Your task to perform on an android device: remove spam from my inbox in the gmail app Image 0: 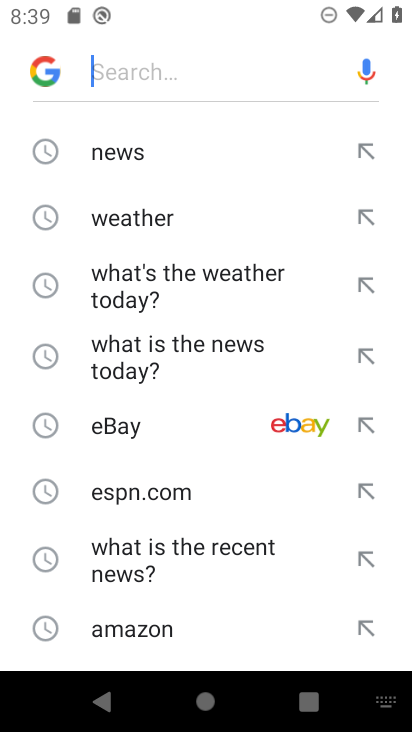
Step 0: press home button
Your task to perform on an android device: remove spam from my inbox in the gmail app Image 1: 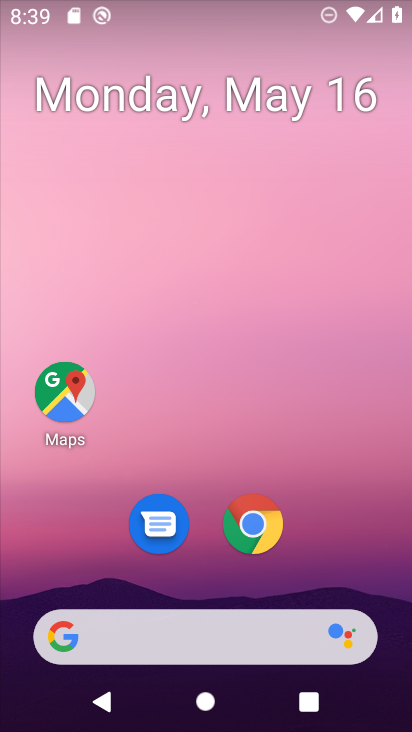
Step 1: drag from (348, 553) to (321, 14)
Your task to perform on an android device: remove spam from my inbox in the gmail app Image 2: 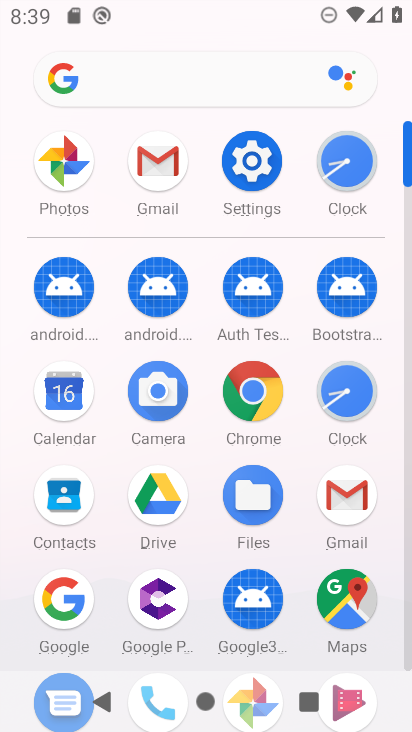
Step 2: click (157, 165)
Your task to perform on an android device: remove spam from my inbox in the gmail app Image 3: 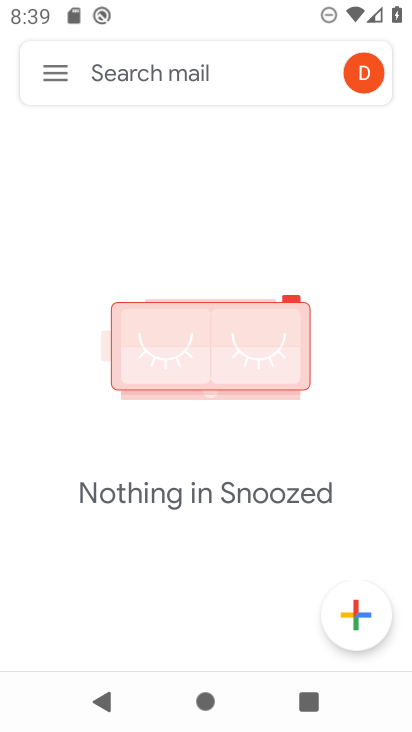
Step 3: click (62, 69)
Your task to perform on an android device: remove spam from my inbox in the gmail app Image 4: 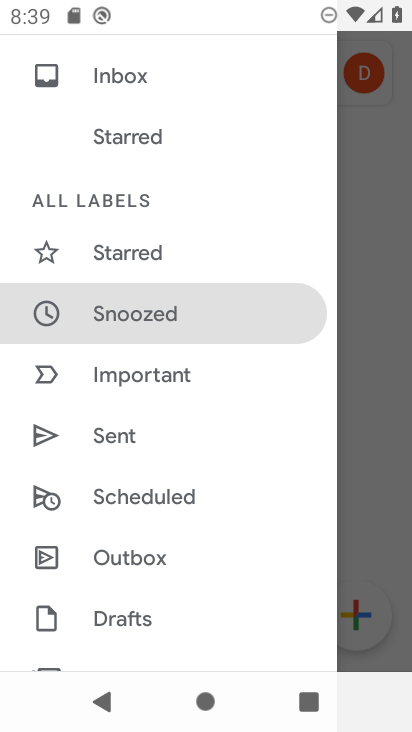
Step 4: drag from (181, 554) to (178, 0)
Your task to perform on an android device: remove spam from my inbox in the gmail app Image 5: 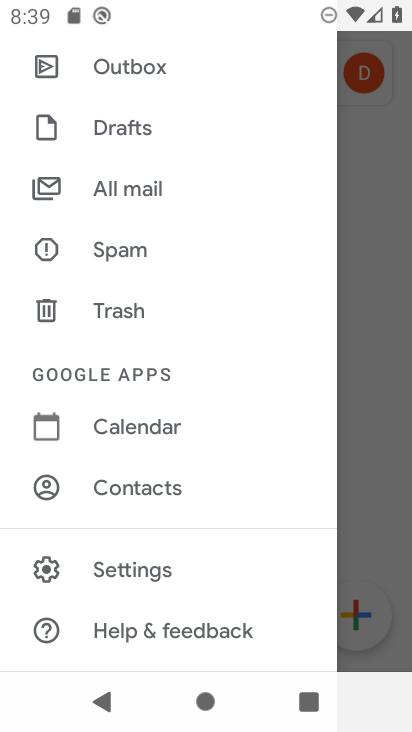
Step 5: click (111, 245)
Your task to perform on an android device: remove spam from my inbox in the gmail app Image 6: 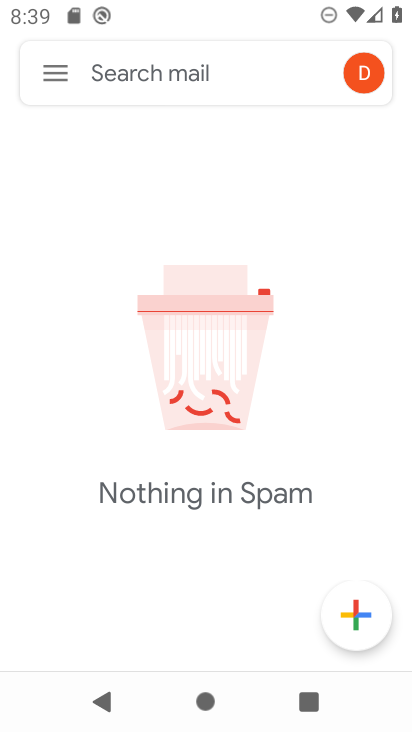
Step 6: task complete